Your task to perform on an android device: Open the calendar app, open the side menu, and click the "Day" option Image 0: 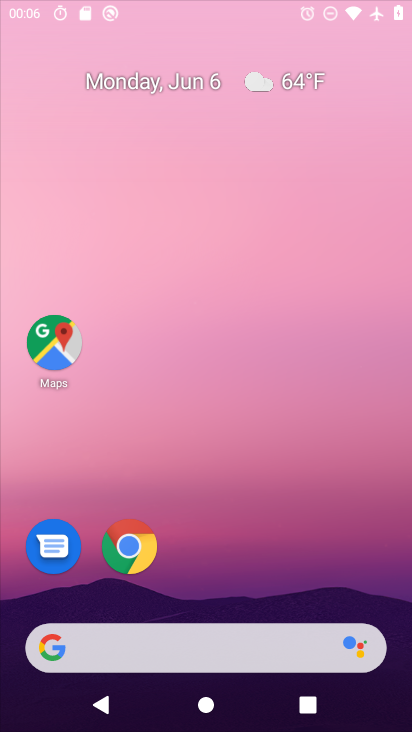
Step 0: click (288, 130)
Your task to perform on an android device: Open the calendar app, open the side menu, and click the "Day" option Image 1: 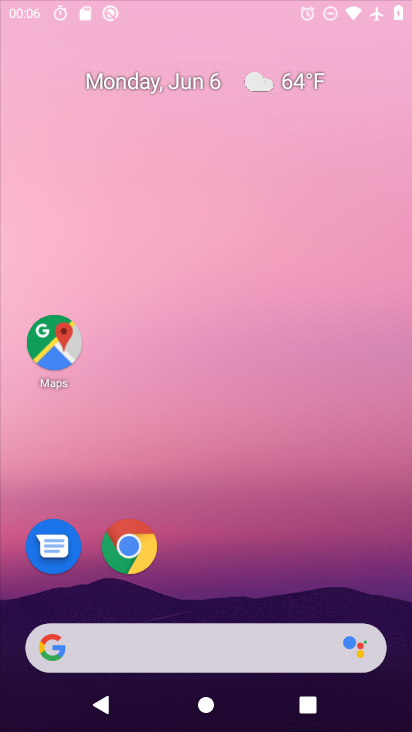
Step 1: drag from (170, 588) to (262, 177)
Your task to perform on an android device: Open the calendar app, open the side menu, and click the "Day" option Image 2: 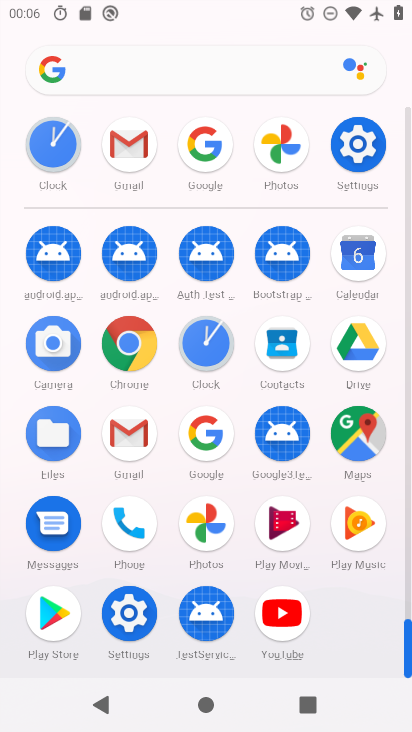
Step 2: click (357, 262)
Your task to perform on an android device: Open the calendar app, open the side menu, and click the "Day" option Image 3: 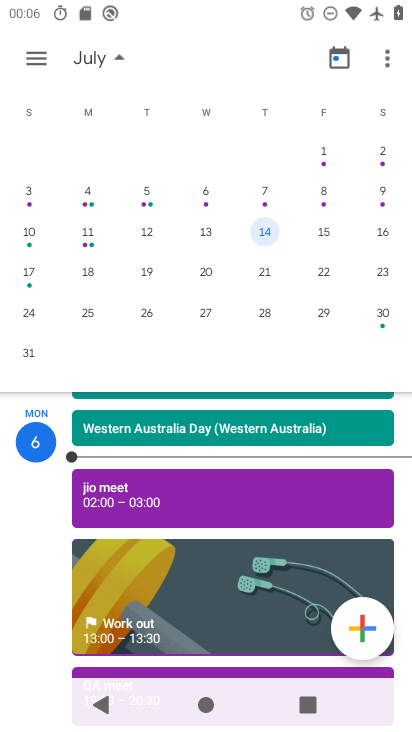
Step 3: click (116, 62)
Your task to perform on an android device: Open the calendar app, open the side menu, and click the "Day" option Image 4: 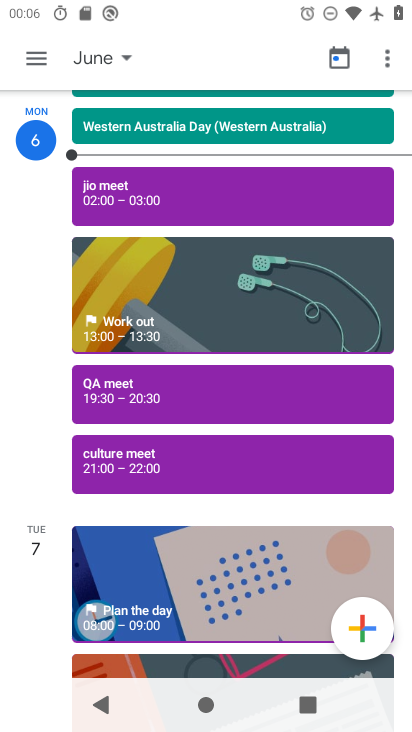
Step 4: click (113, 67)
Your task to perform on an android device: Open the calendar app, open the side menu, and click the "Day" option Image 5: 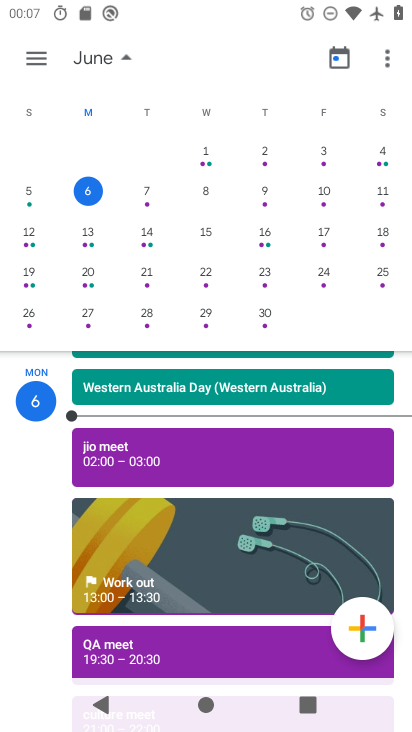
Step 5: click (29, 70)
Your task to perform on an android device: Open the calendar app, open the side menu, and click the "Day" option Image 6: 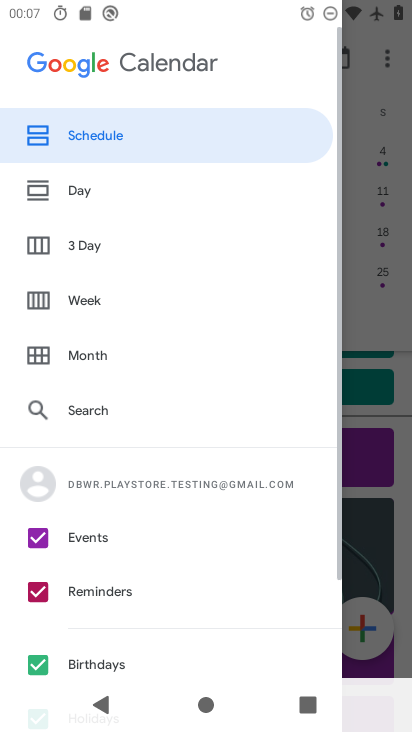
Step 6: click (103, 184)
Your task to perform on an android device: Open the calendar app, open the side menu, and click the "Day" option Image 7: 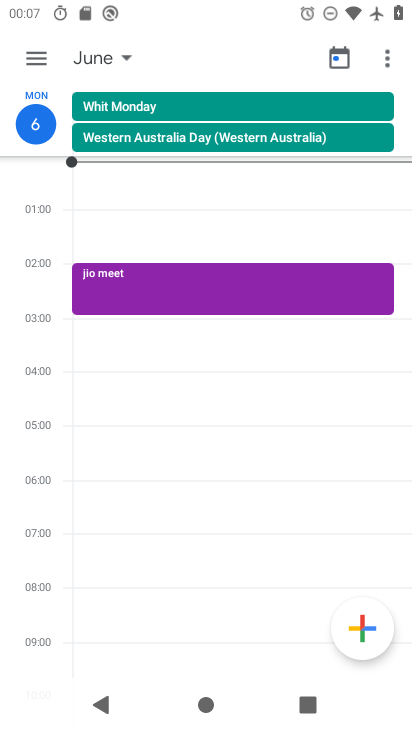
Step 7: task complete